Your task to perform on an android device: Go to location settings Image 0: 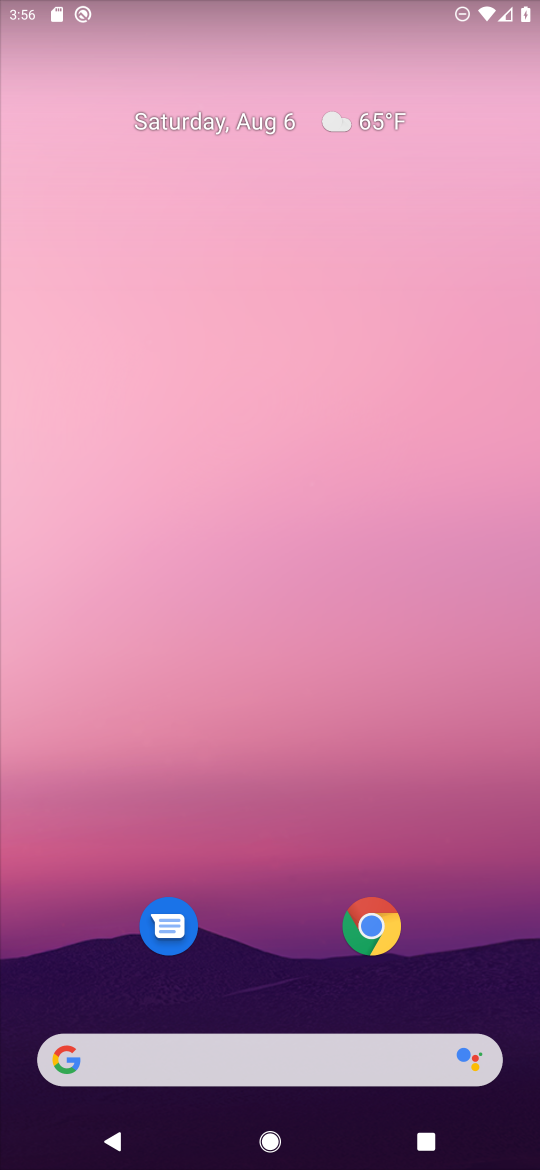
Step 0: drag from (273, 963) to (214, 308)
Your task to perform on an android device: Go to location settings Image 1: 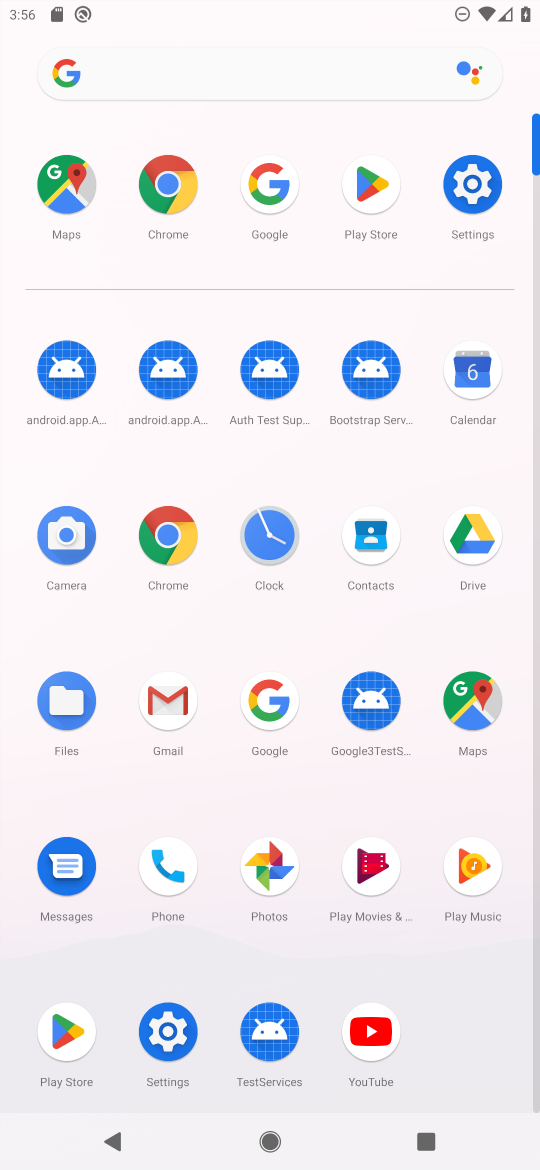
Step 1: click (486, 208)
Your task to perform on an android device: Go to location settings Image 2: 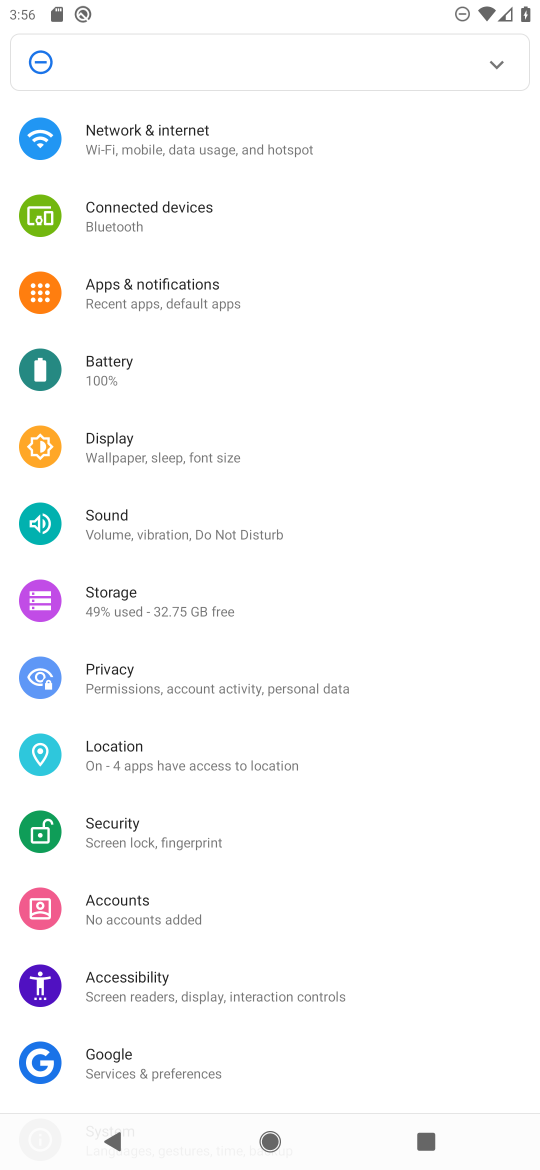
Step 2: click (179, 760)
Your task to perform on an android device: Go to location settings Image 3: 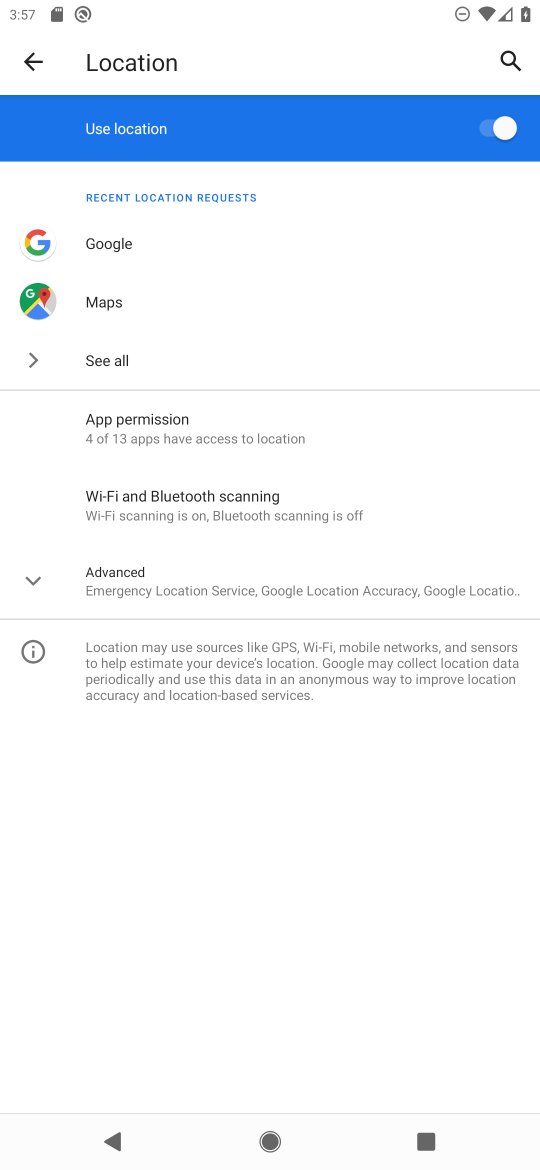
Step 3: task complete